Your task to perform on an android device: toggle wifi Image 0: 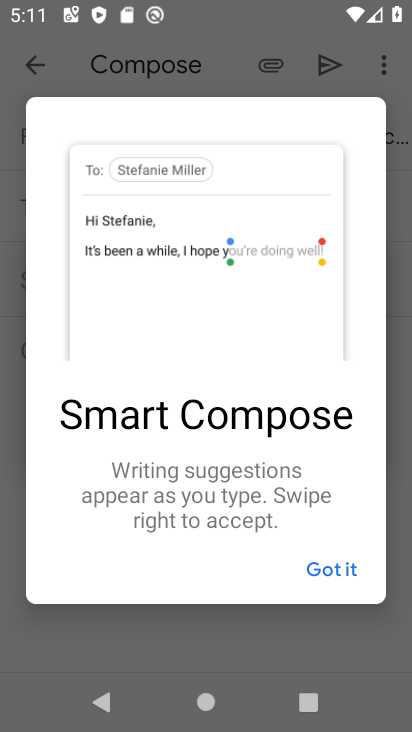
Step 0: click (353, 564)
Your task to perform on an android device: toggle wifi Image 1: 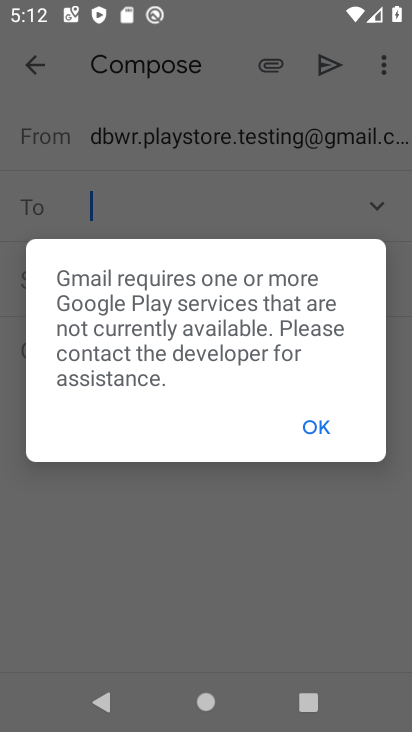
Step 1: press home button
Your task to perform on an android device: toggle wifi Image 2: 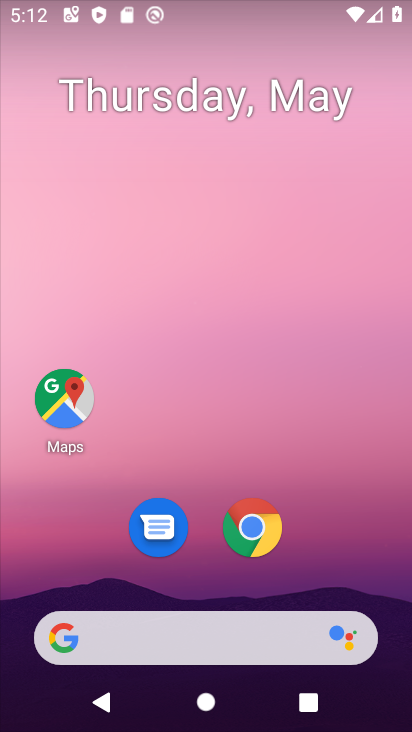
Step 2: drag from (304, 441) to (276, 30)
Your task to perform on an android device: toggle wifi Image 3: 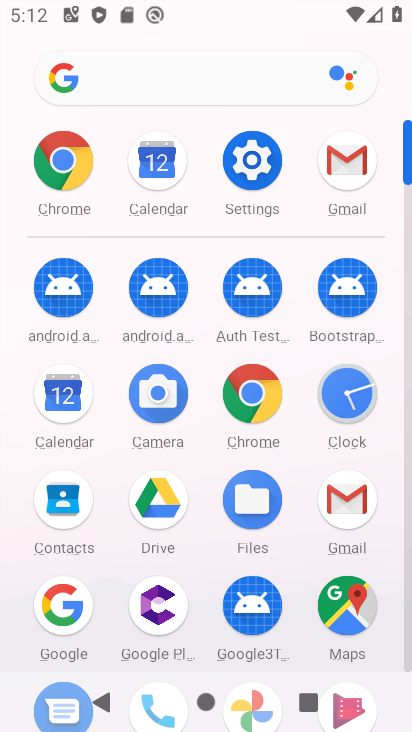
Step 3: click (251, 153)
Your task to perform on an android device: toggle wifi Image 4: 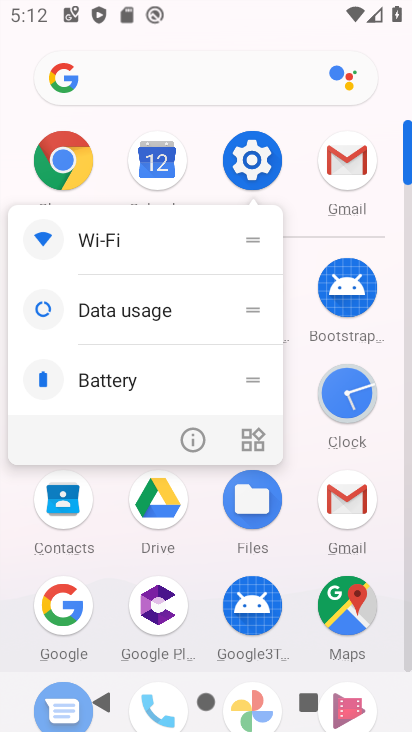
Step 4: click (251, 153)
Your task to perform on an android device: toggle wifi Image 5: 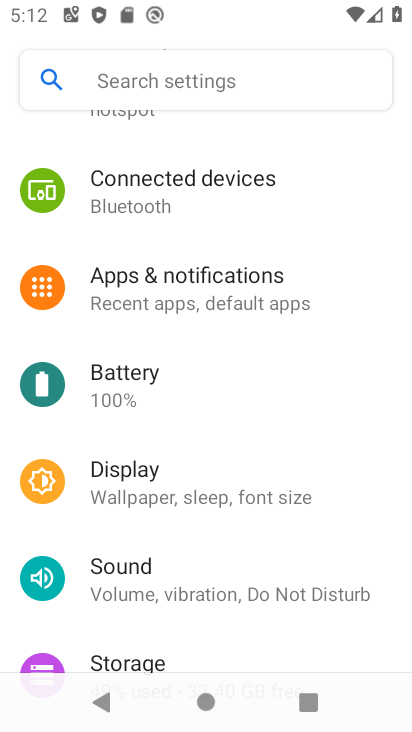
Step 5: drag from (169, 222) to (238, 618)
Your task to perform on an android device: toggle wifi Image 6: 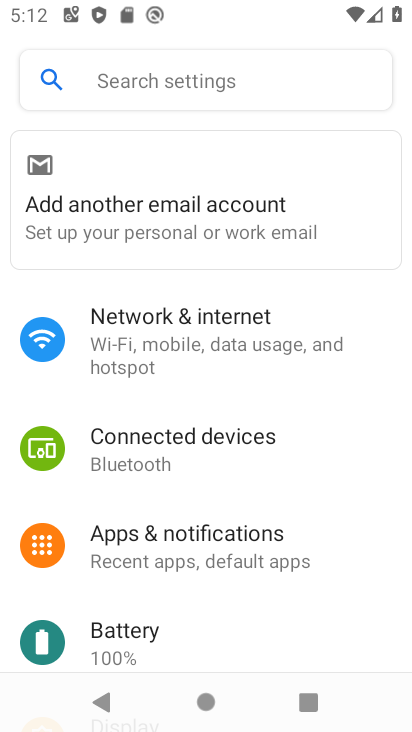
Step 6: drag from (231, 166) to (282, 623)
Your task to perform on an android device: toggle wifi Image 7: 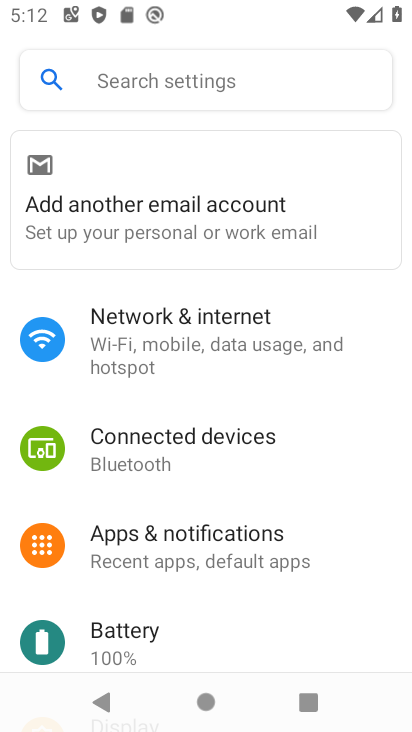
Step 7: click (207, 344)
Your task to perform on an android device: toggle wifi Image 8: 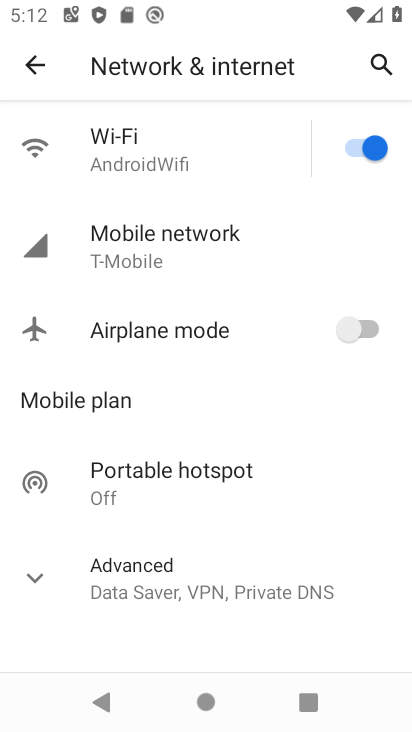
Step 8: click (350, 155)
Your task to perform on an android device: toggle wifi Image 9: 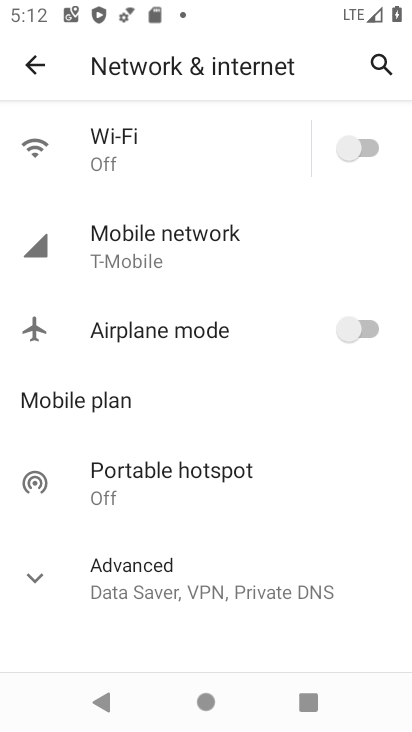
Step 9: task complete